Your task to perform on an android device: Go to Amazon Image 0: 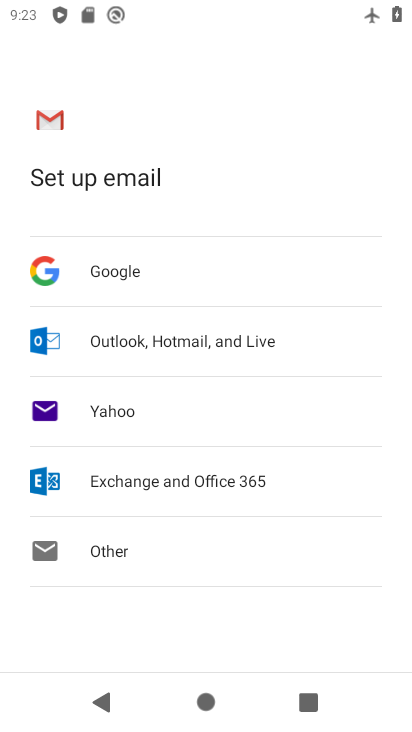
Step 0: press home button
Your task to perform on an android device: Go to Amazon Image 1: 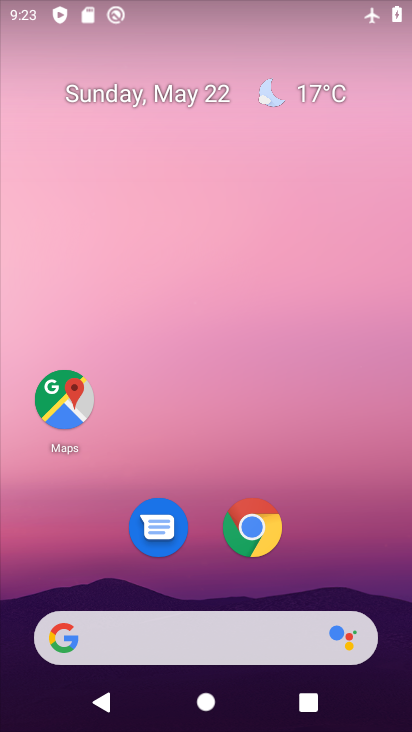
Step 1: click (257, 530)
Your task to perform on an android device: Go to Amazon Image 2: 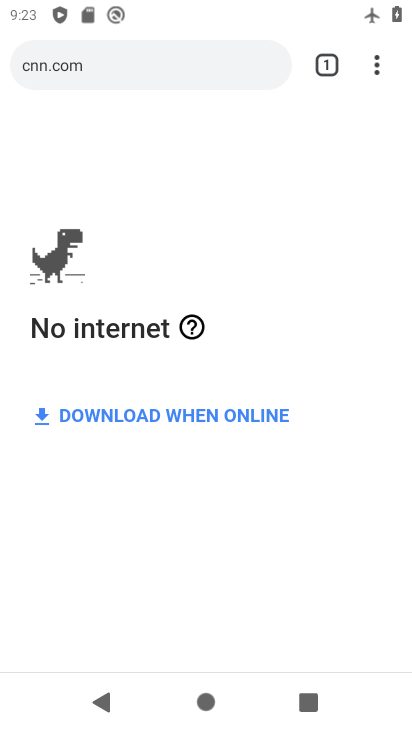
Step 2: click (376, 65)
Your task to perform on an android device: Go to Amazon Image 3: 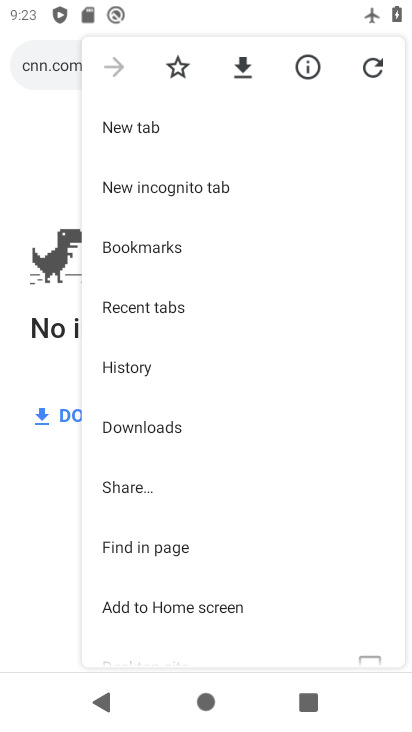
Step 3: click (147, 123)
Your task to perform on an android device: Go to Amazon Image 4: 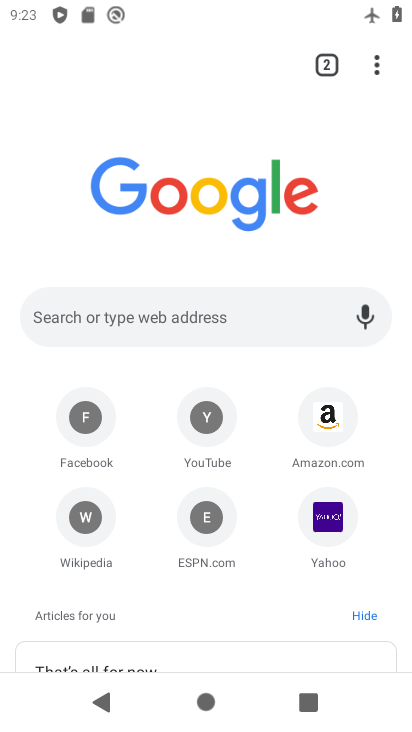
Step 4: click (335, 418)
Your task to perform on an android device: Go to Amazon Image 5: 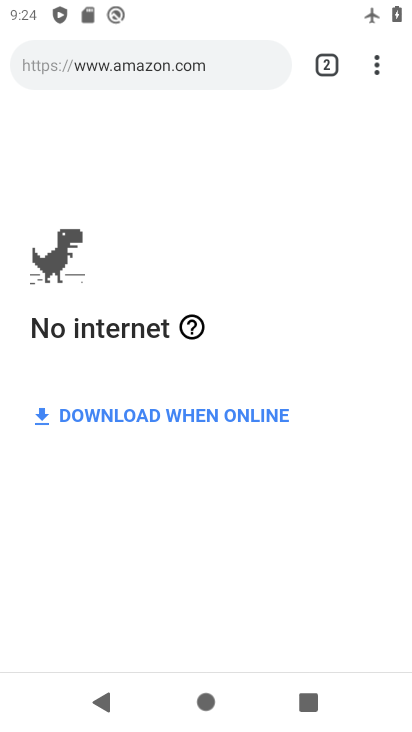
Step 5: task complete